Your task to perform on an android device: Open Google Image 0: 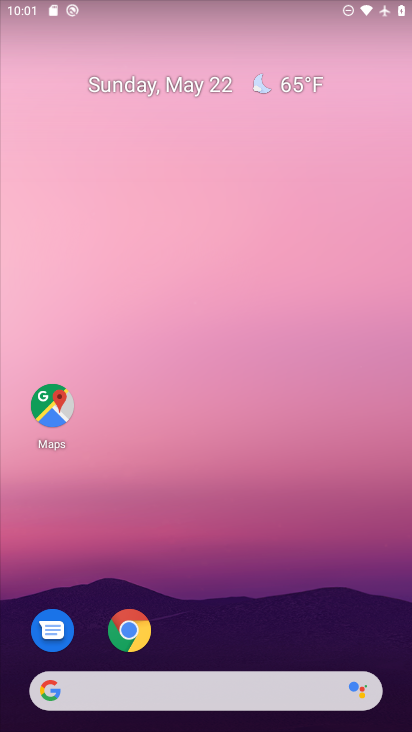
Step 0: press home button
Your task to perform on an android device: Open Google Image 1: 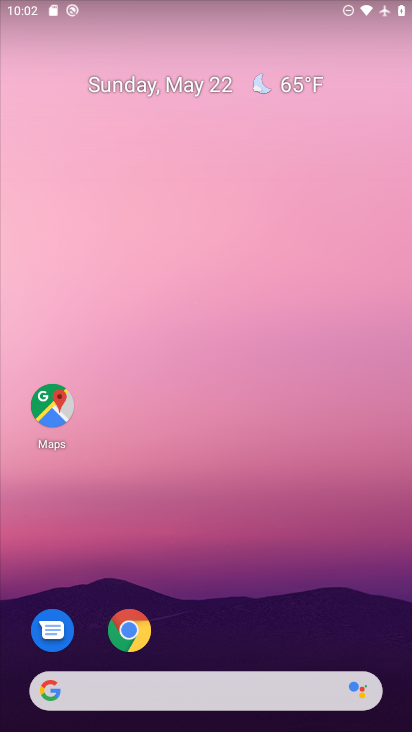
Step 1: drag from (126, 704) to (328, 97)
Your task to perform on an android device: Open Google Image 2: 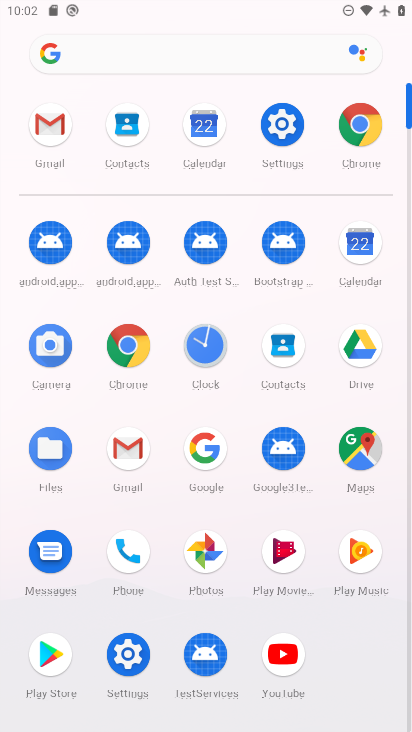
Step 2: click (210, 452)
Your task to perform on an android device: Open Google Image 3: 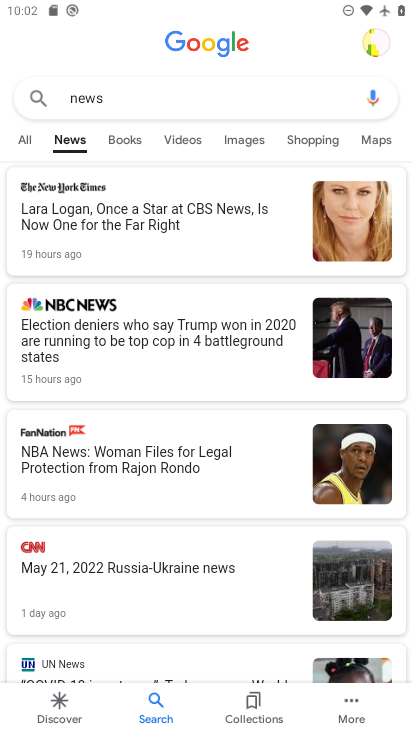
Step 3: task complete